Your task to perform on an android device: turn off data saver in the chrome app Image 0: 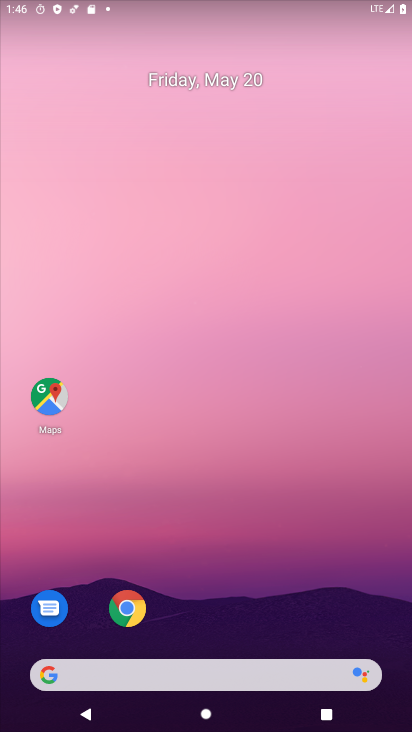
Step 0: click (128, 606)
Your task to perform on an android device: turn off data saver in the chrome app Image 1: 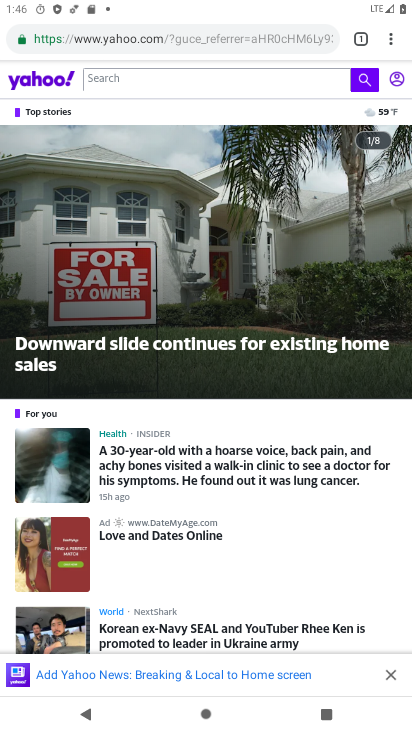
Step 1: click (393, 40)
Your task to perform on an android device: turn off data saver in the chrome app Image 2: 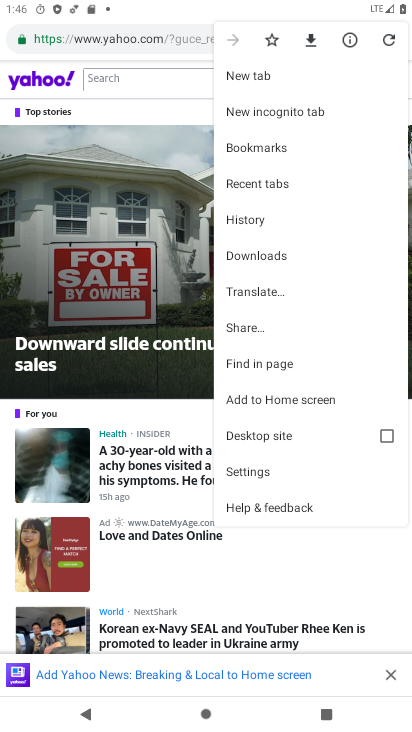
Step 2: click (256, 476)
Your task to perform on an android device: turn off data saver in the chrome app Image 3: 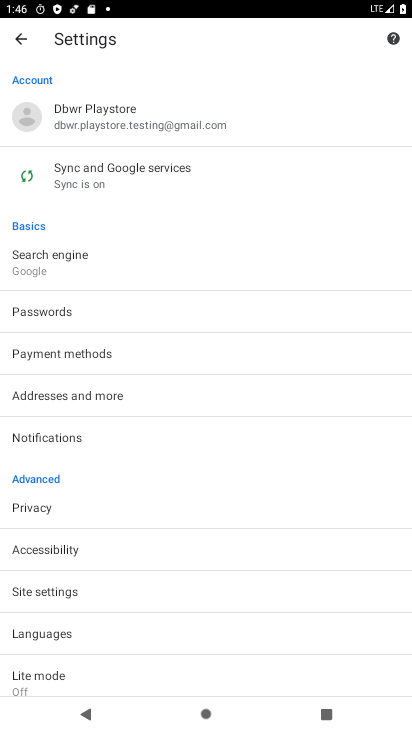
Step 3: drag from (65, 573) to (90, 497)
Your task to perform on an android device: turn off data saver in the chrome app Image 4: 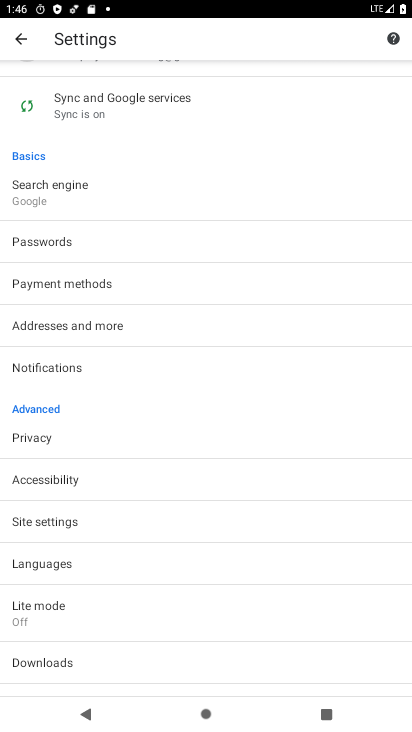
Step 4: click (48, 603)
Your task to perform on an android device: turn off data saver in the chrome app Image 5: 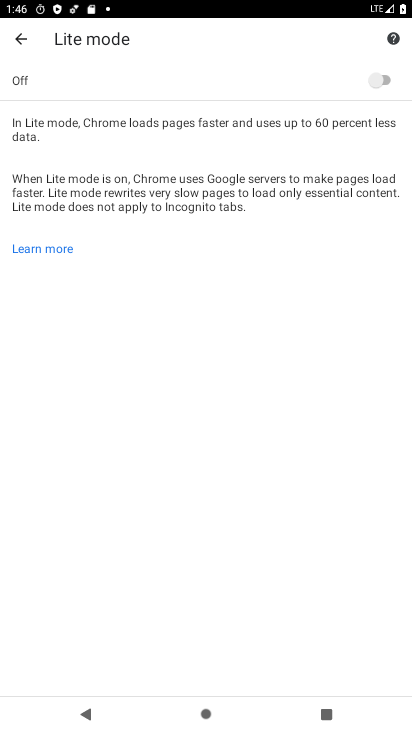
Step 5: task complete